Your task to perform on an android device: add a contact Image 0: 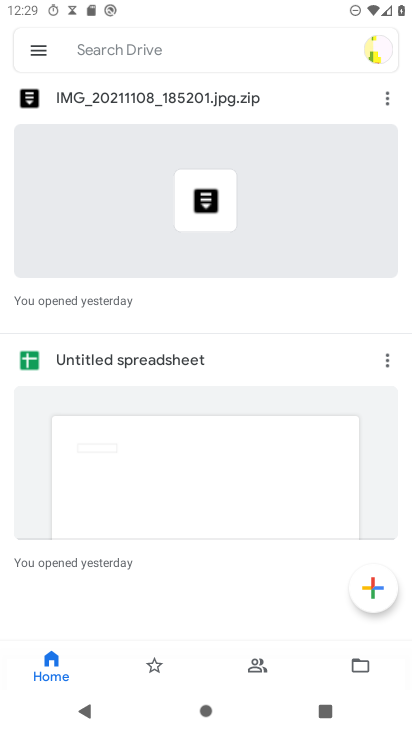
Step 0: press home button
Your task to perform on an android device: add a contact Image 1: 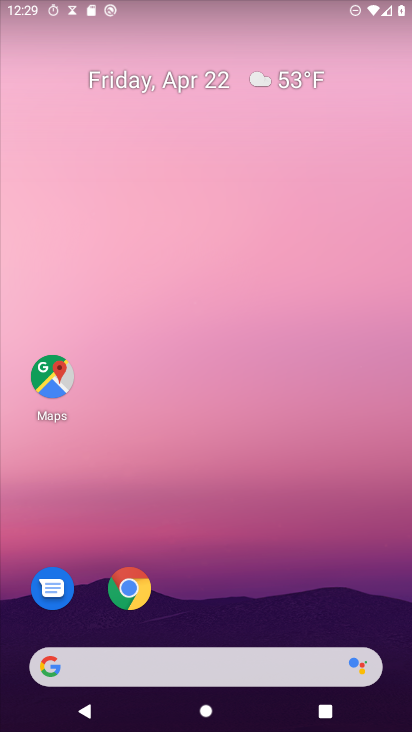
Step 1: drag from (215, 631) to (345, 141)
Your task to perform on an android device: add a contact Image 2: 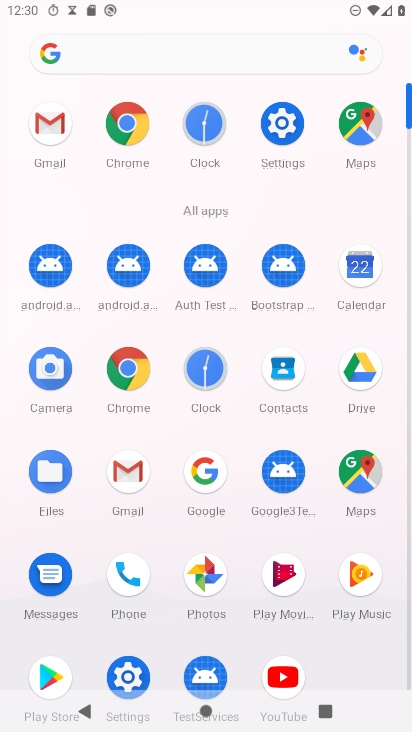
Step 2: click (285, 372)
Your task to perform on an android device: add a contact Image 3: 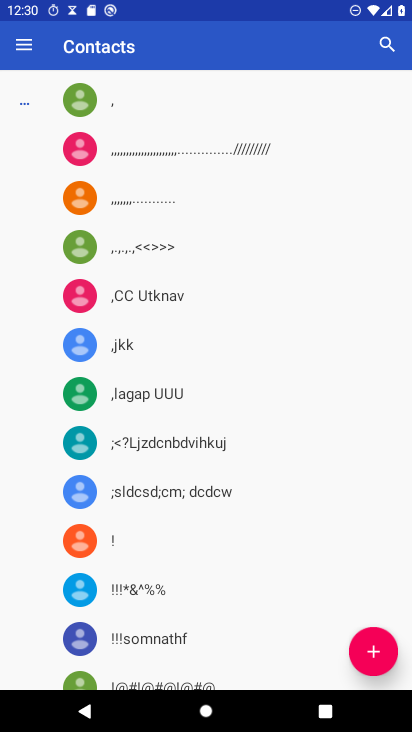
Step 3: click (366, 652)
Your task to perform on an android device: add a contact Image 4: 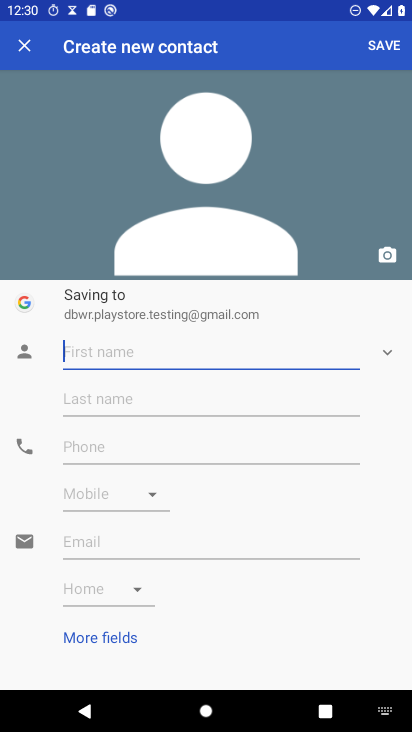
Step 4: type "tgfdxcvbnhytrew"
Your task to perform on an android device: add a contact Image 5: 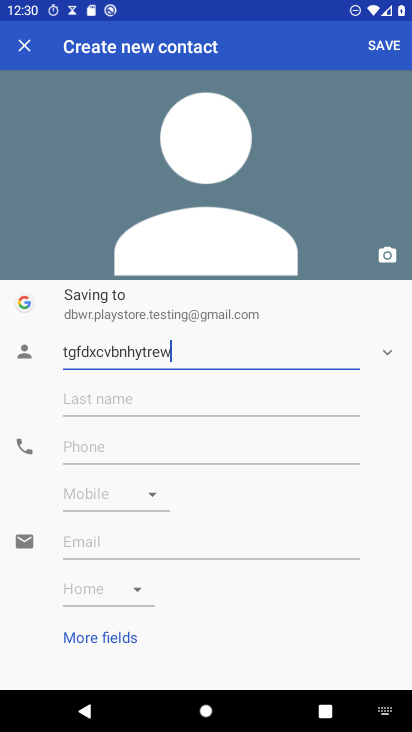
Step 5: click (83, 445)
Your task to perform on an android device: add a contact Image 6: 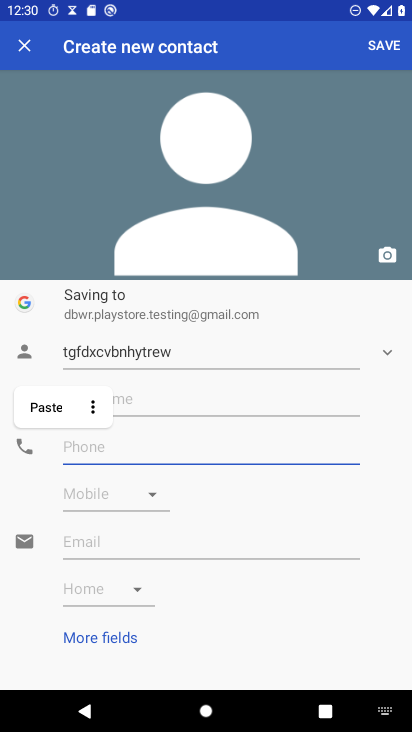
Step 6: type "12123344566"
Your task to perform on an android device: add a contact Image 7: 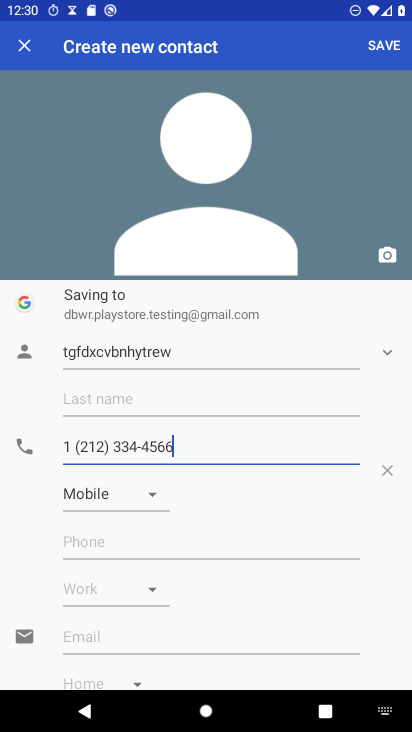
Step 7: click (384, 47)
Your task to perform on an android device: add a contact Image 8: 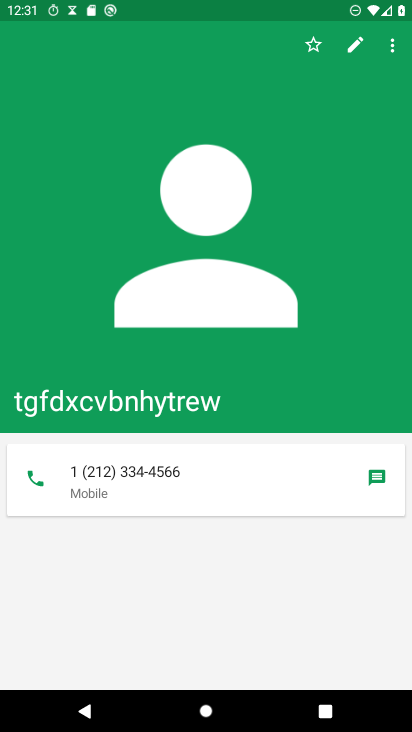
Step 8: task complete